Your task to perform on an android device: turn off priority inbox in the gmail app Image 0: 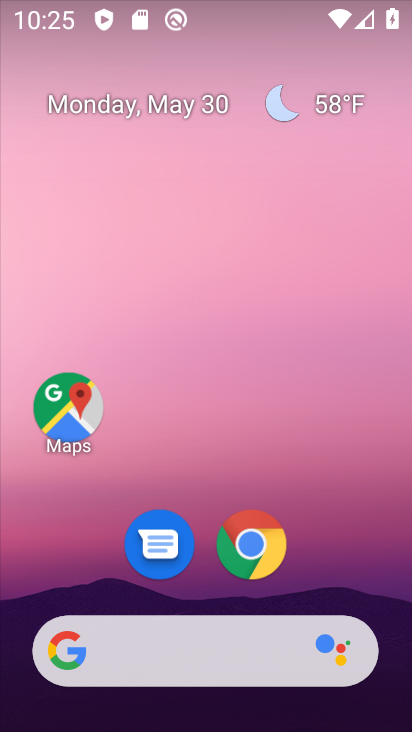
Step 0: drag from (373, 547) to (284, 111)
Your task to perform on an android device: turn off priority inbox in the gmail app Image 1: 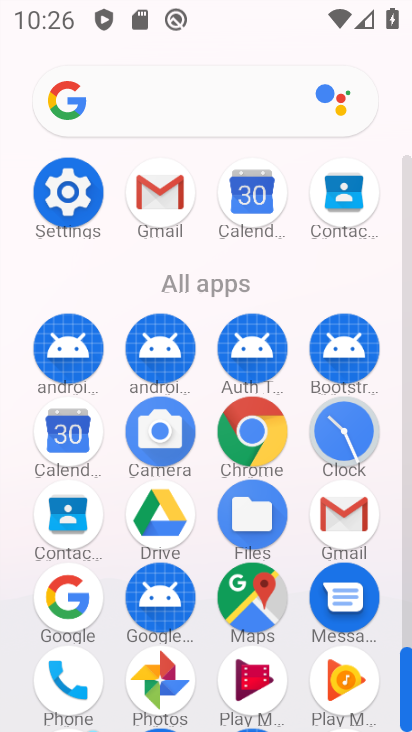
Step 1: click (349, 525)
Your task to perform on an android device: turn off priority inbox in the gmail app Image 2: 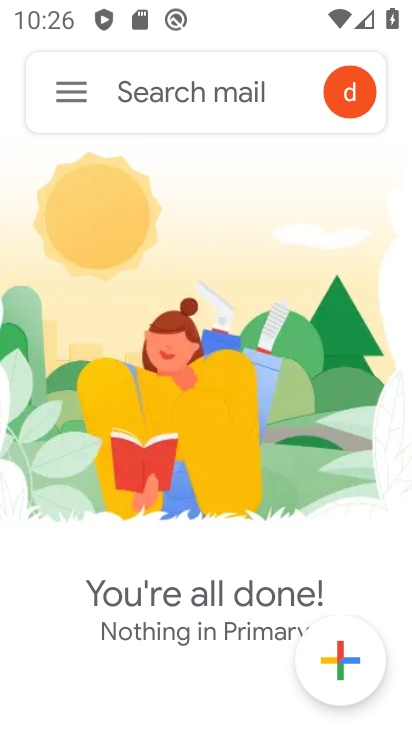
Step 2: task complete